Your task to perform on an android device: allow cookies in the chrome app Image 0: 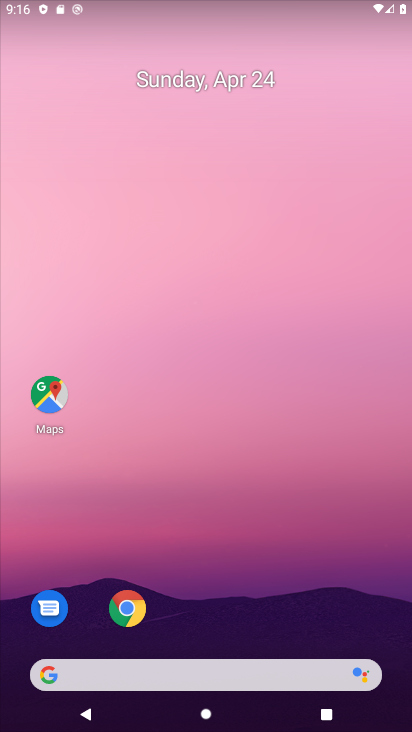
Step 0: drag from (335, 468) to (393, 45)
Your task to perform on an android device: allow cookies in the chrome app Image 1: 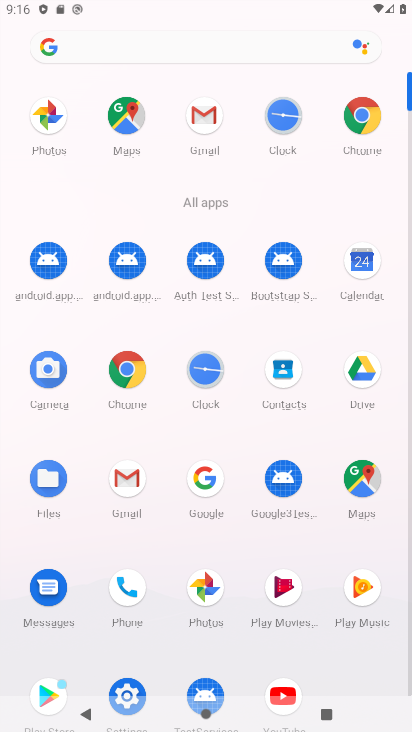
Step 1: click (367, 114)
Your task to perform on an android device: allow cookies in the chrome app Image 2: 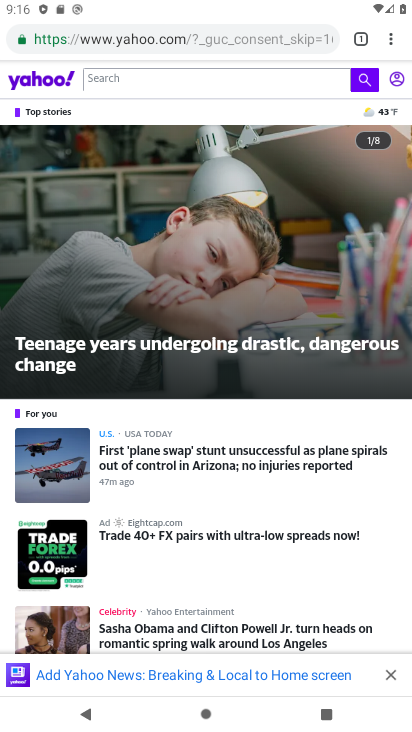
Step 2: drag from (388, 44) to (266, 472)
Your task to perform on an android device: allow cookies in the chrome app Image 3: 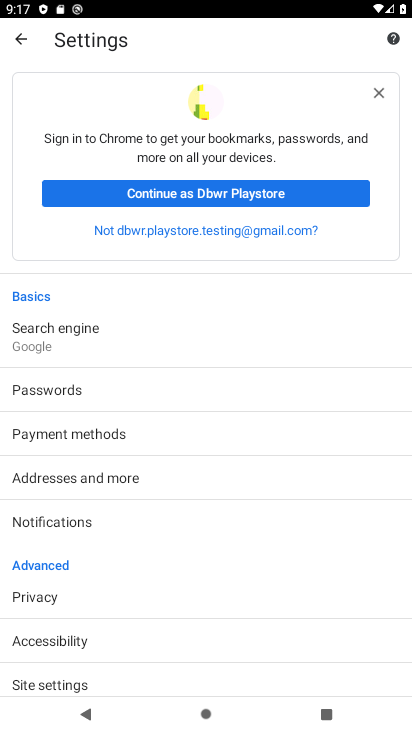
Step 3: drag from (160, 563) to (204, 169)
Your task to perform on an android device: allow cookies in the chrome app Image 4: 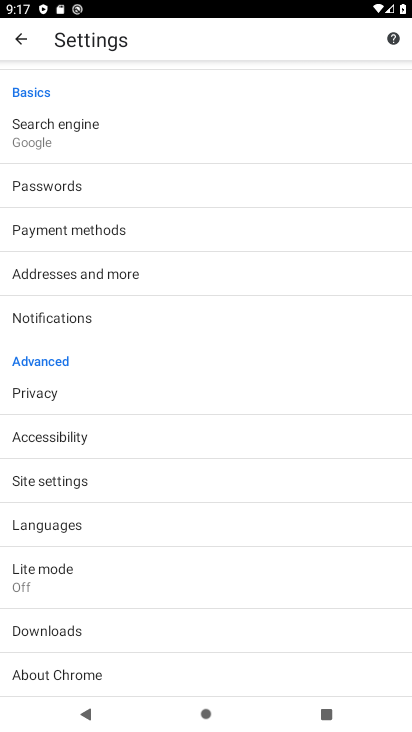
Step 4: click (17, 485)
Your task to perform on an android device: allow cookies in the chrome app Image 5: 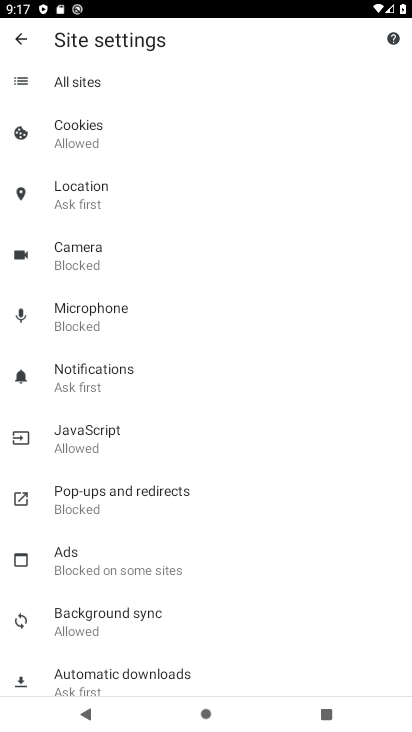
Step 5: click (98, 132)
Your task to perform on an android device: allow cookies in the chrome app Image 6: 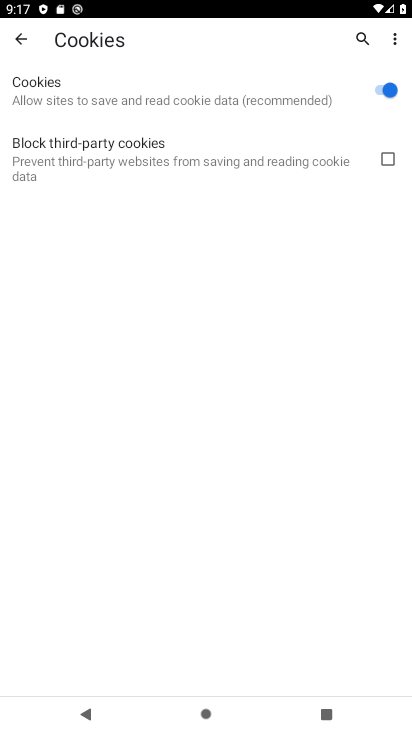
Step 6: task complete